Your task to perform on an android device: Open the calendar app, open the side menu, and click the "Day" option Image 0: 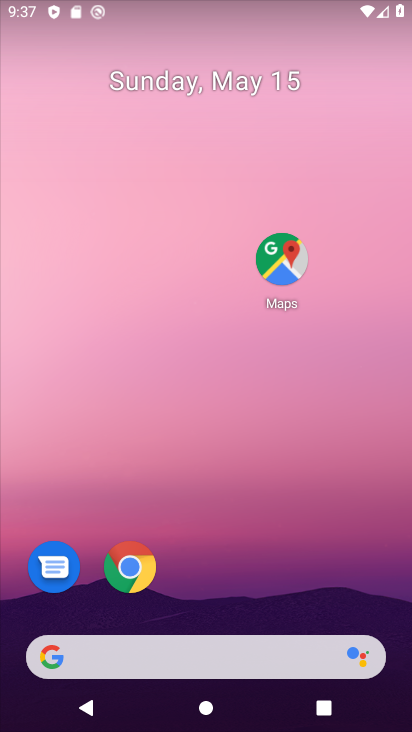
Step 0: drag from (254, 527) to (296, 91)
Your task to perform on an android device: Open the calendar app, open the side menu, and click the "Day" option Image 1: 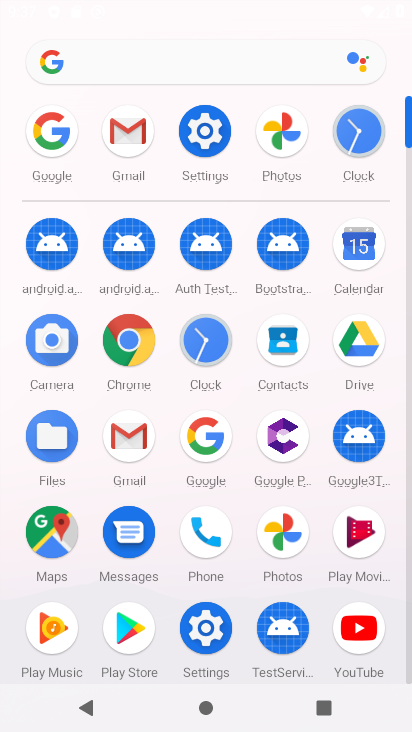
Step 1: click (352, 251)
Your task to perform on an android device: Open the calendar app, open the side menu, and click the "Day" option Image 2: 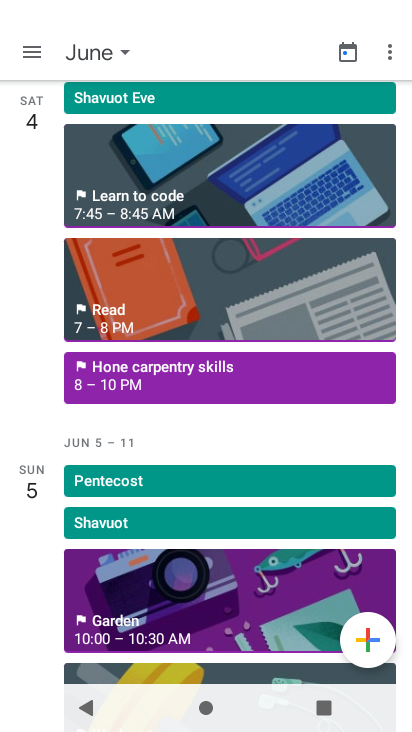
Step 2: click (94, 60)
Your task to perform on an android device: Open the calendar app, open the side menu, and click the "Day" option Image 3: 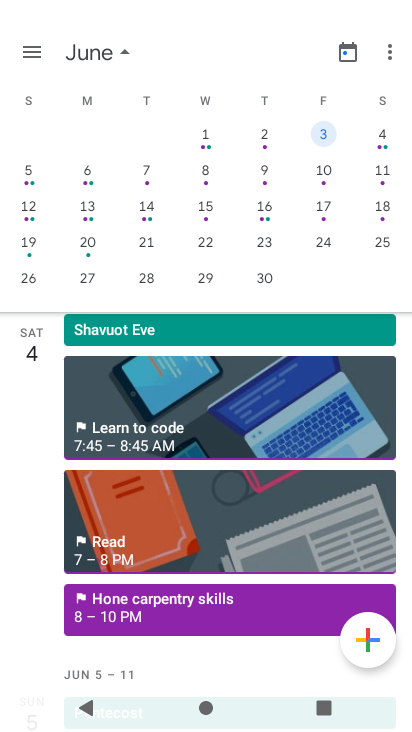
Step 3: drag from (39, 288) to (411, 264)
Your task to perform on an android device: Open the calendar app, open the side menu, and click the "Day" option Image 4: 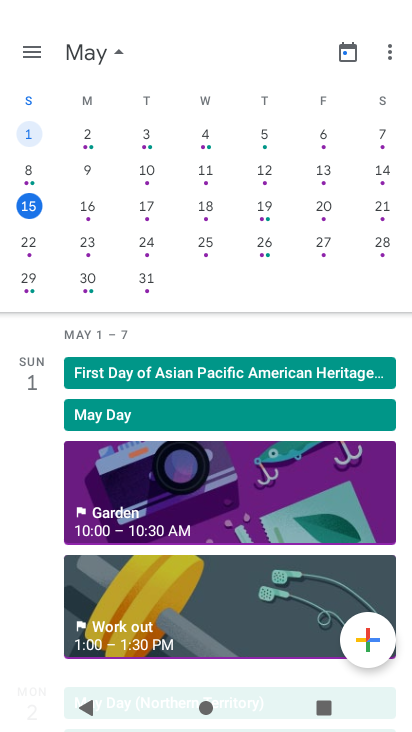
Step 4: click (30, 211)
Your task to perform on an android device: Open the calendar app, open the side menu, and click the "Day" option Image 5: 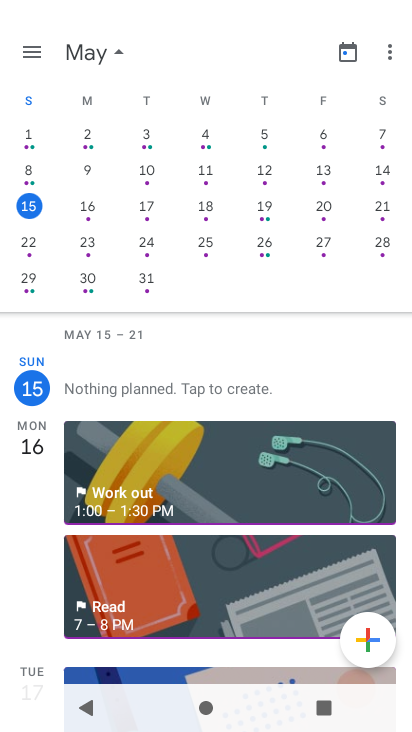
Step 5: click (30, 55)
Your task to perform on an android device: Open the calendar app, open the side menu, and click the "Day" option Image 6: 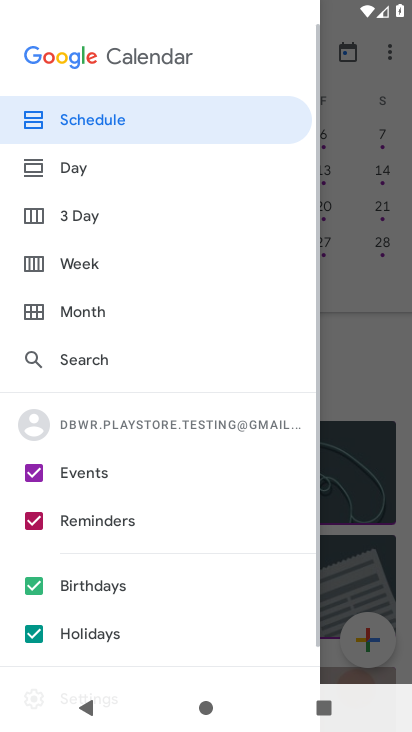
Step 6: click (84, 166)
Your task to perform on an android device: Open the calendar app, open the side menu, and click the "Day" option Image 7: 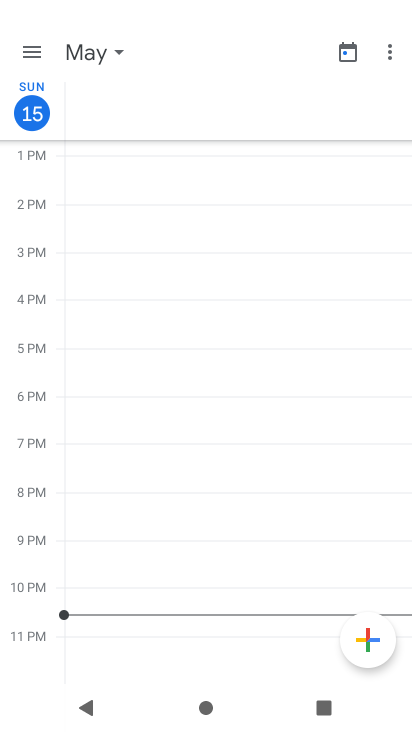
Step 7: task complete